Your task to perform on an android device: Search for pizza restaurants on Maps Image 0: 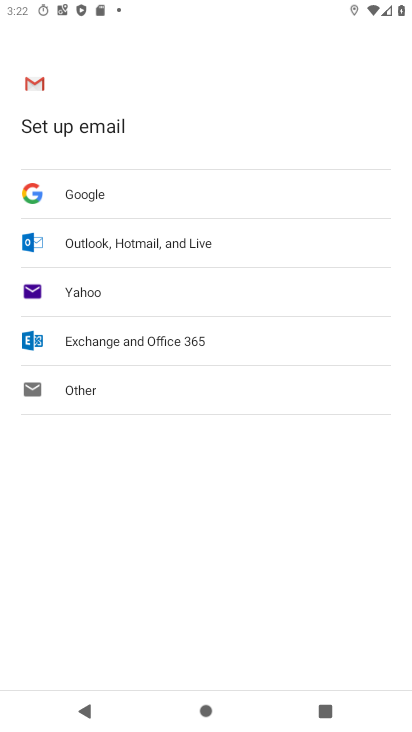
Step 0: press home button
Your task to perform on an android device: Search for pizza restaurants on Maps Image 1: 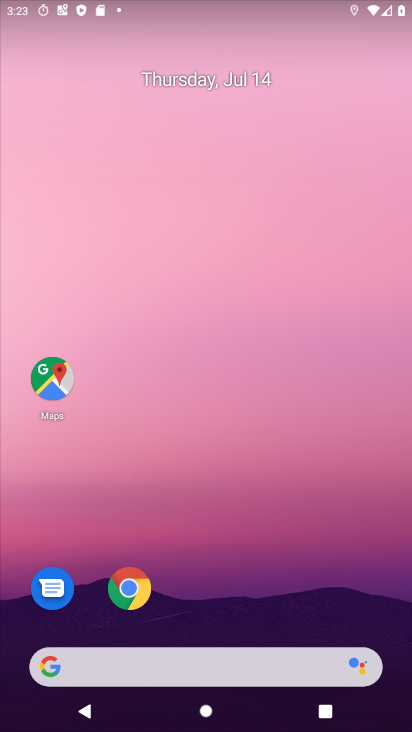
Step 1: click (57, 378)
Your task to perform on an android device: Search for pizza restaurants on Maps Image 2: 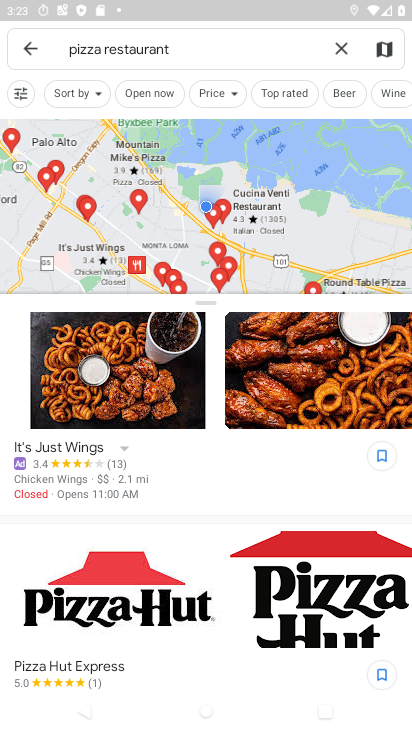
Step 2: task complete